Your task to perform on an android device: Open notification settings Image 0: 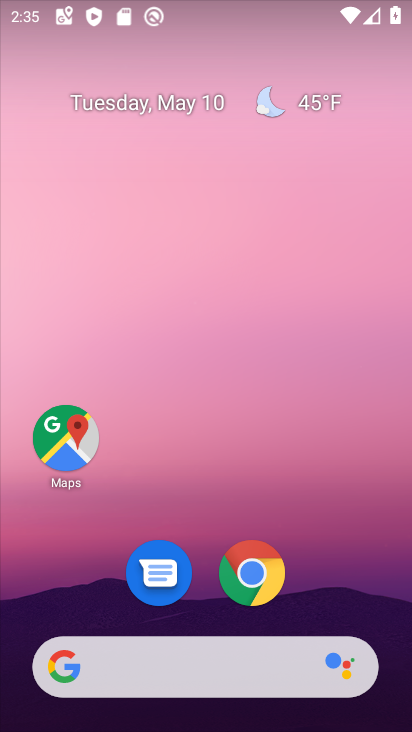
Step 0: drag from (212, 616) to (235, 170)
Your task to perform on an android device: Open notification settings Image 1: 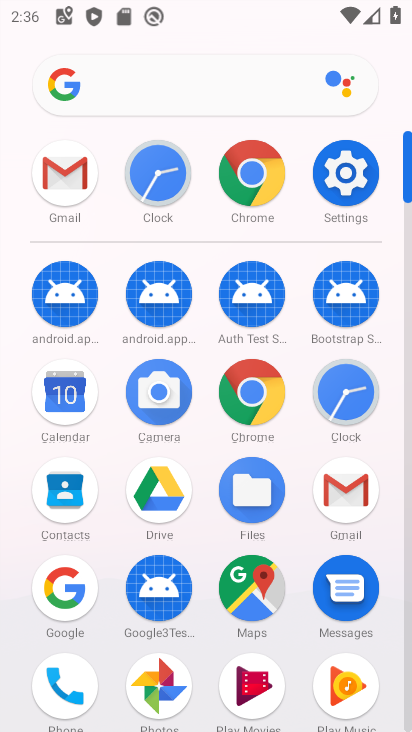
Step 1: click (324, 165)
Your task to perform on an android device: Open notification settings Image 2: 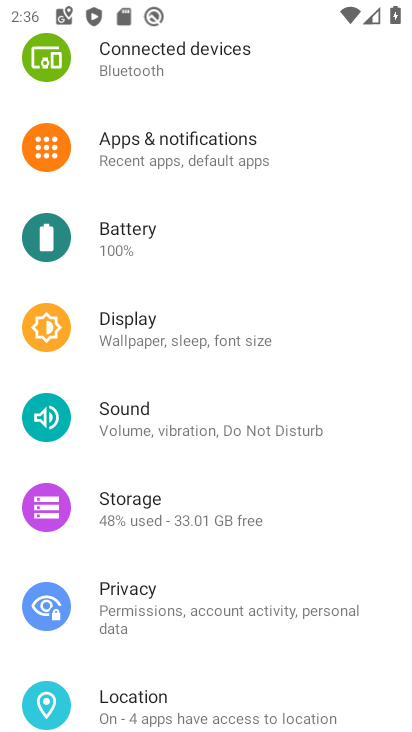
Step 2: click (208, 174)
Your task to perform on an android device: Open notification settings Image 3: 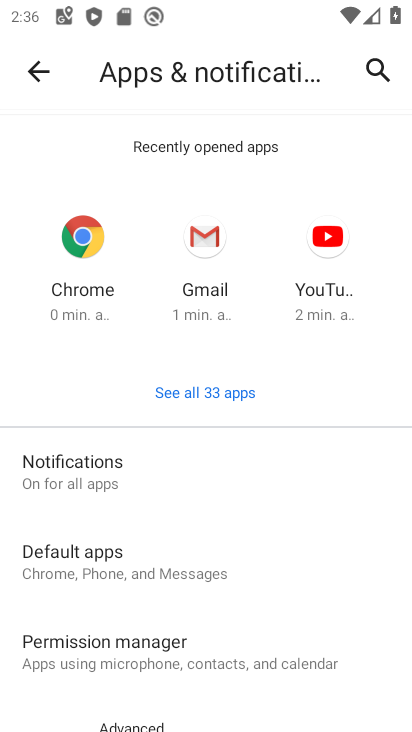
Step 3: click (149, 492)
Your task to perform on an android device: Open notification settings Image 4: 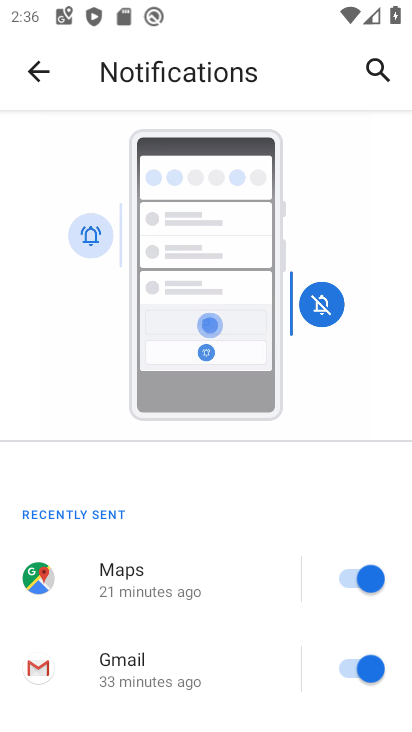
Step 4: drag from (222, 678) to (318, 319)
Your task to perform on an android device: Open notification settings Image 5: 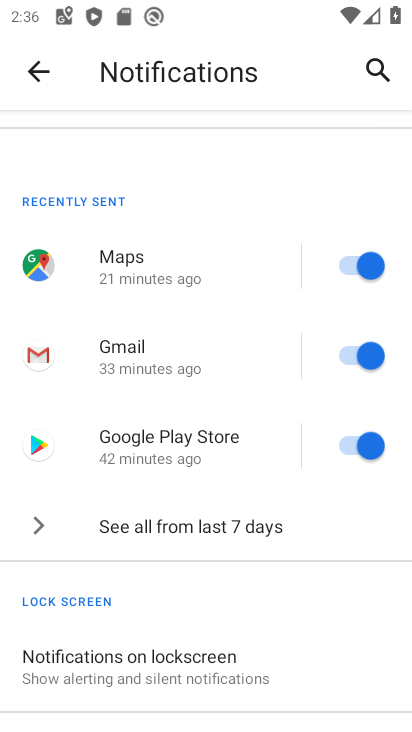
Step 5: drag from (287, 627) to (331, 340)
Your task to perform on an android device: Open notification settings Image 6: 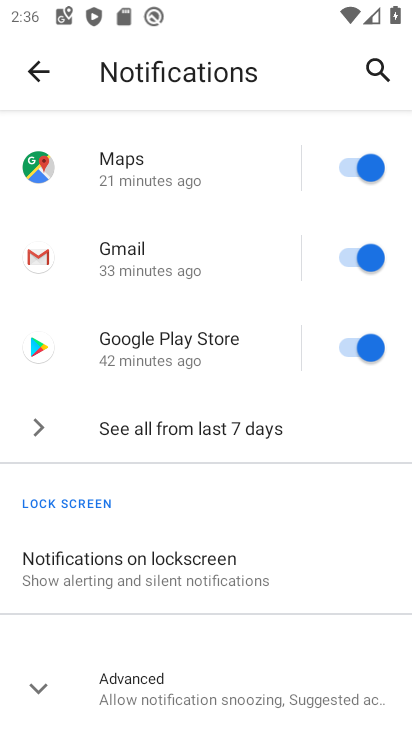
Step 6: click (198, 683)
Your task to perform on an android device: Open notification settings Image 7: 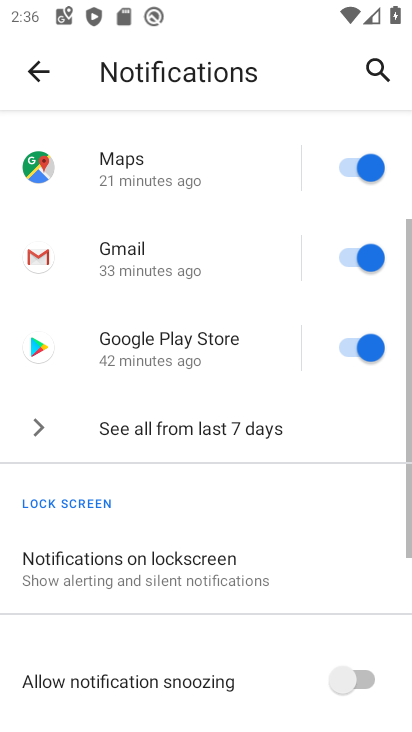
Step 7: task complete